Your task to perform on an android device: Go to sound settings Image 0: 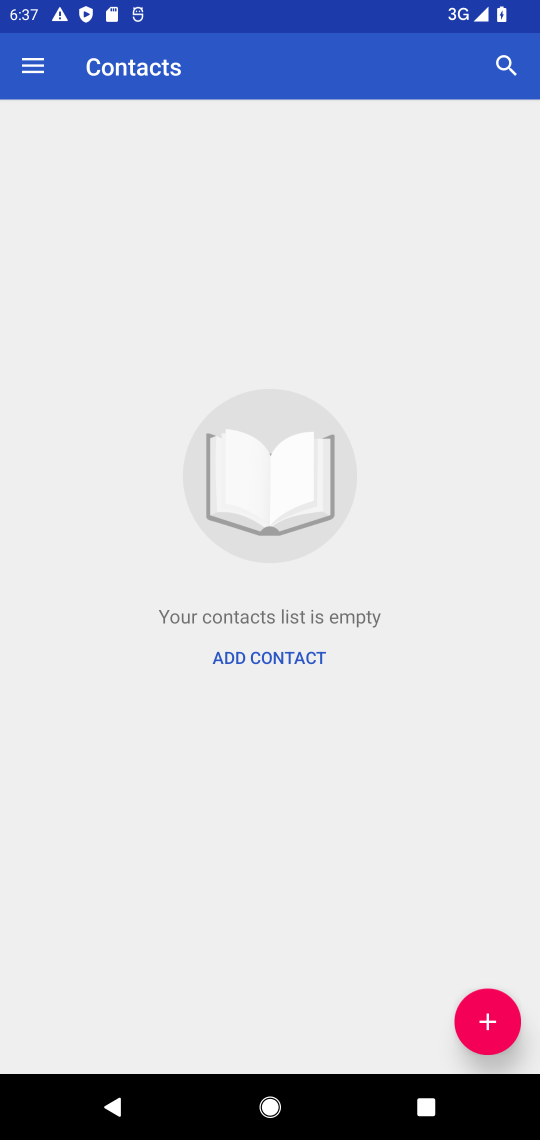
Step 0: press back button
Your task to perform on an android device: Go to sound settings Image 1: 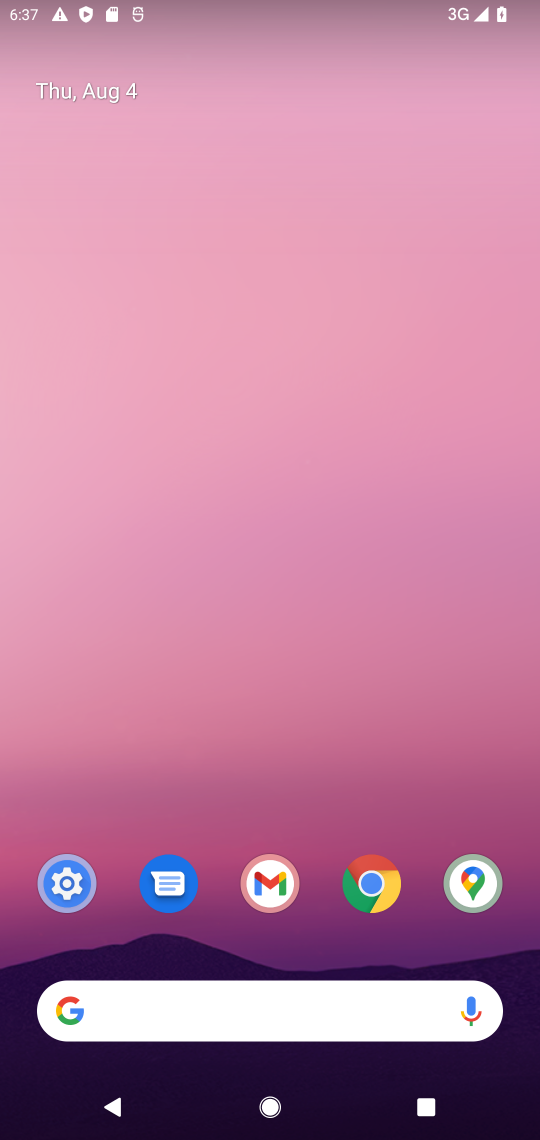
Step 1: click (73, 878)
Your task to perform on an android device: Go to sound settings Image 2: 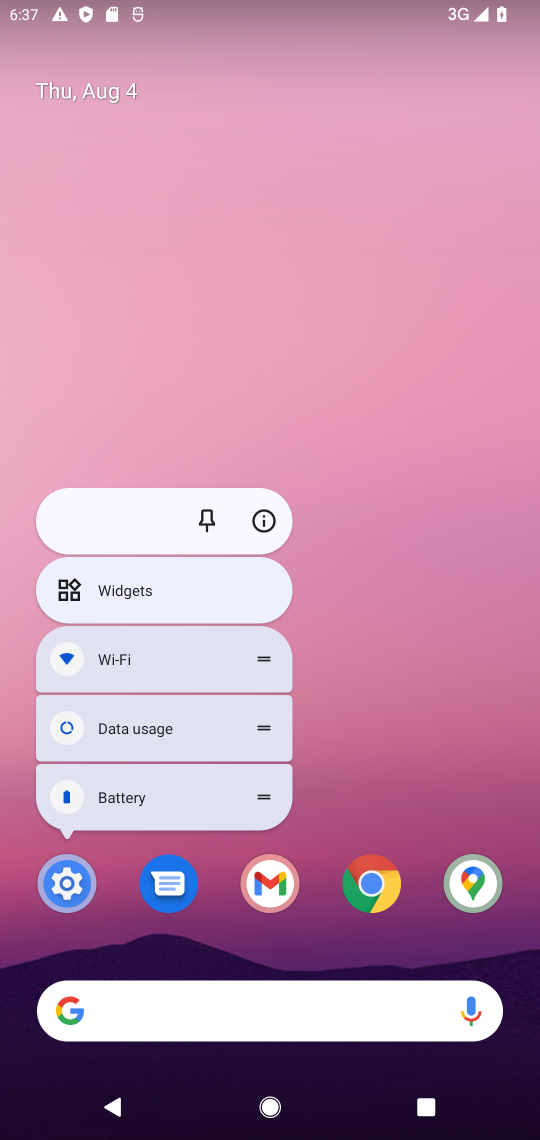
Step 2: click (65, 895)
Your task to perform on an android device: Go to sound settings Image 3: 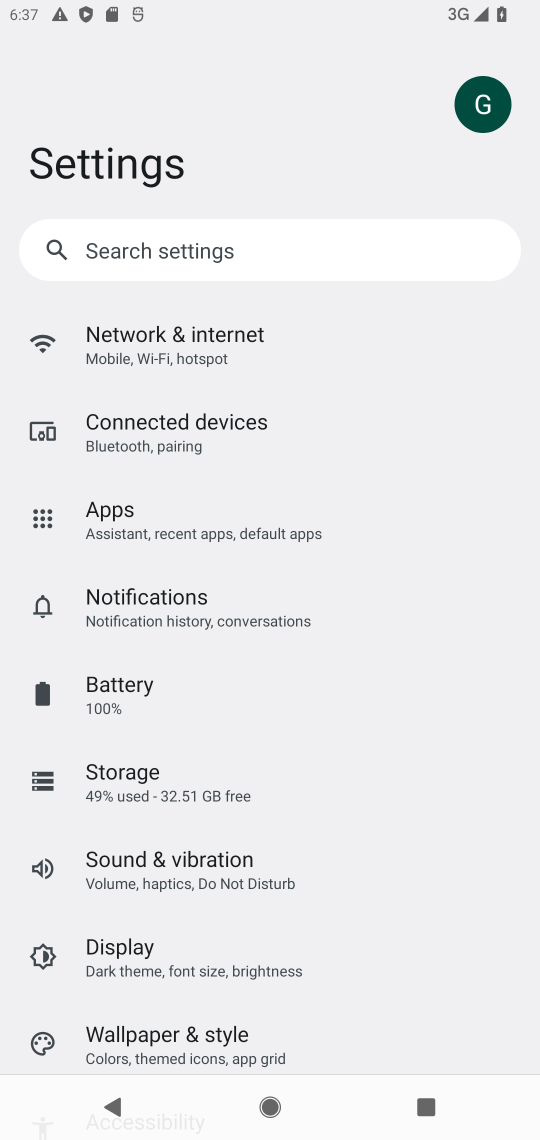
Step 3: task complete